Your task to perform on an android device: star an email in the gmail app Image 0: 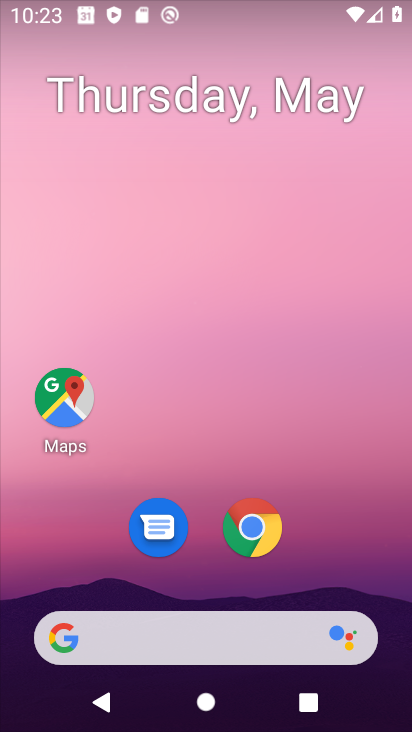
Step 0: drag from (230, 717) to (227, 187)
Your task to perform on an android device: star an email in the gmail app Image 1: 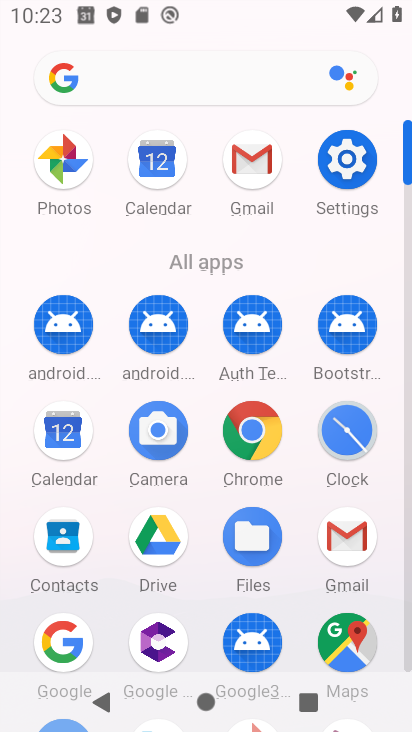
Step 1: click (253, 168)
Your task to perform on an android device: star an email in the gmail app Image 2: 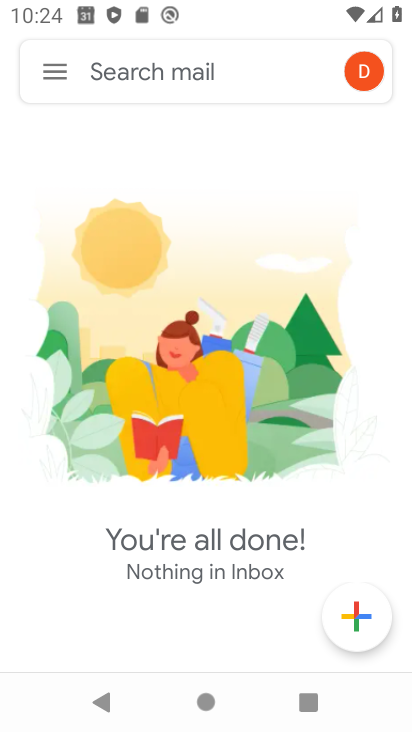
Step 2: task complete